Your task to perform on an android device: turn off sleep mode Image 0: 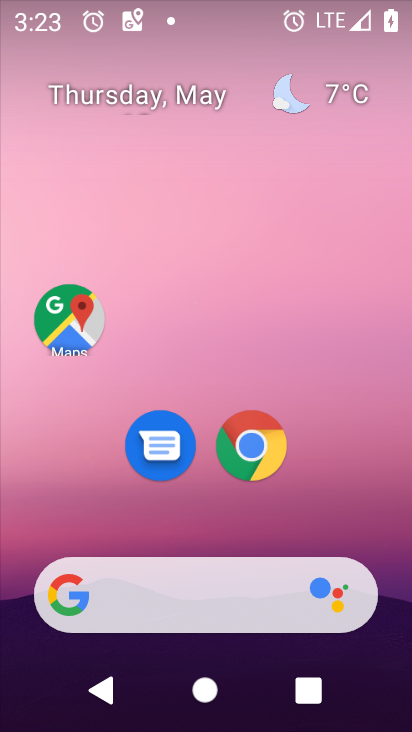
Step 0: drag from (355, 542) to (342, 5)
Your task to perform on an android device: turn off sleep mode Image 1: 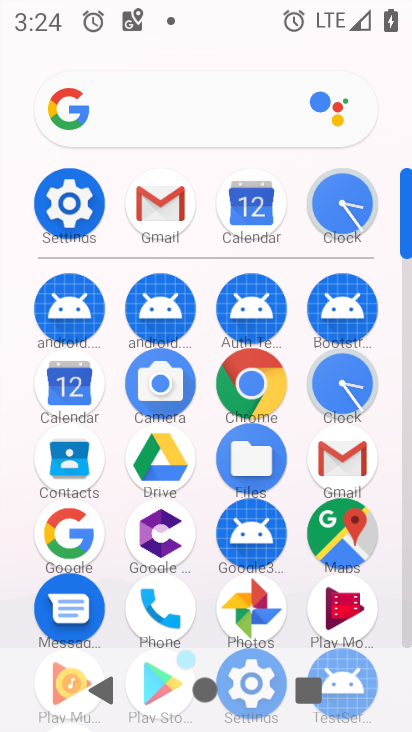
Step 1: click (74, 207)
Your task to perform on an android device: turn off sleep mode Image 2: 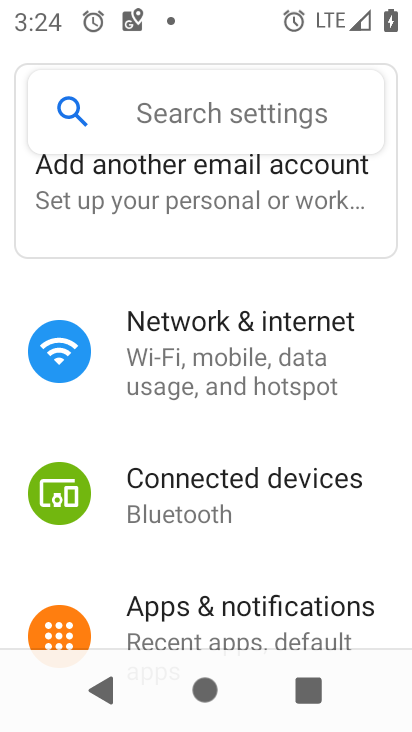
Step 2: drag from (395, 587) to (379, 180)
Your task to perform on an android device: turn off sleep mode Image 3: 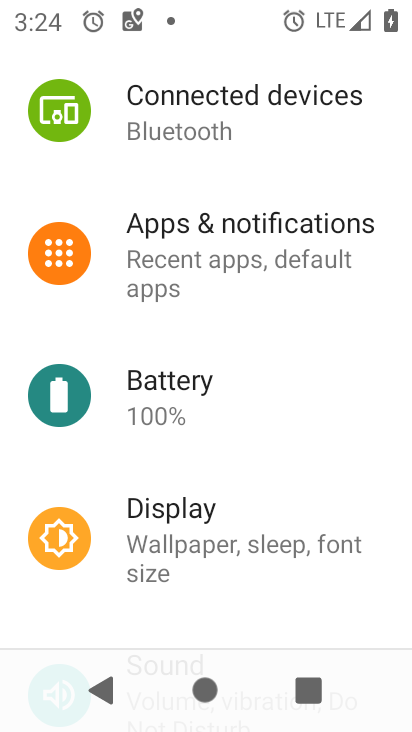
Step 3: click (161, 545)
Your task to perform on an android device: turn off sleep mode Image 4: 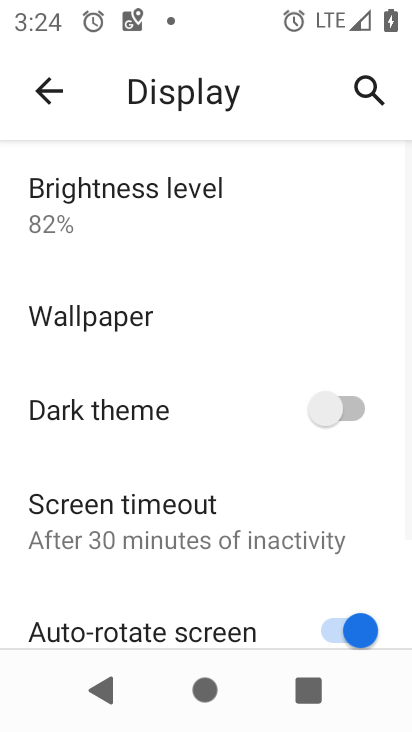
Step 4: task complete